Your task to perform on an android device: turn off location Image 0: 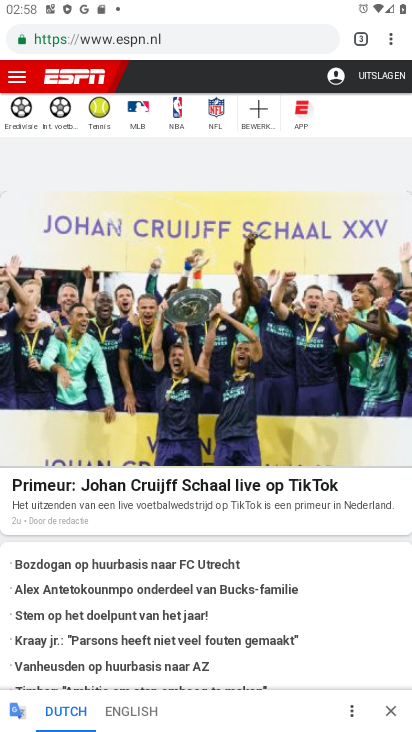
Step 0: press home button
Your task to perform on an android device: turn off location Image 1: 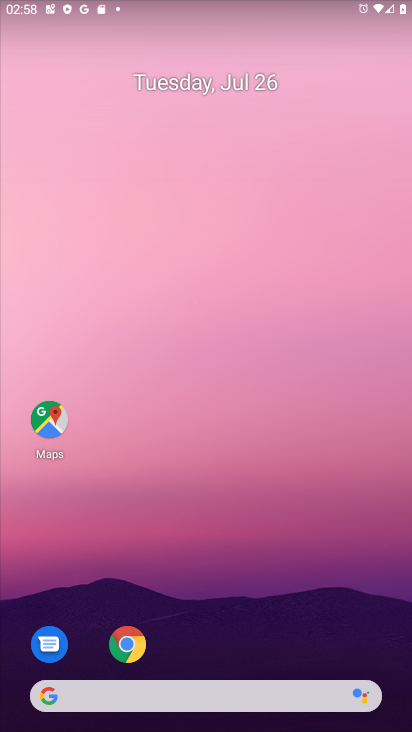
Step 1: drag from (195, 656) to (164, 244)
Your task to perform on an android device: turn off location Image 2: 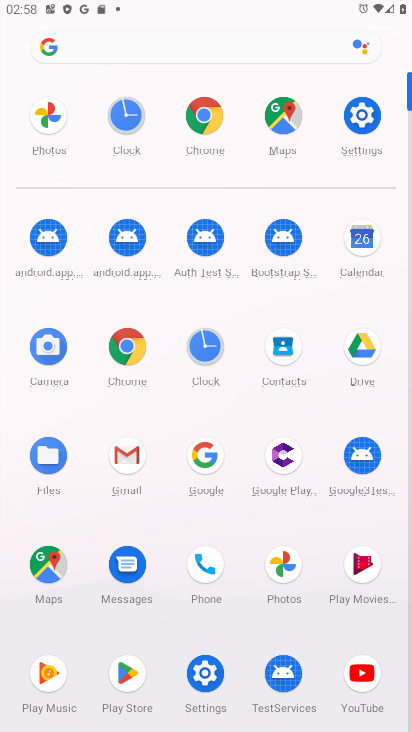
Step 2: click (369, 111)
Your task to perform on an android device: turn off location Image 3: 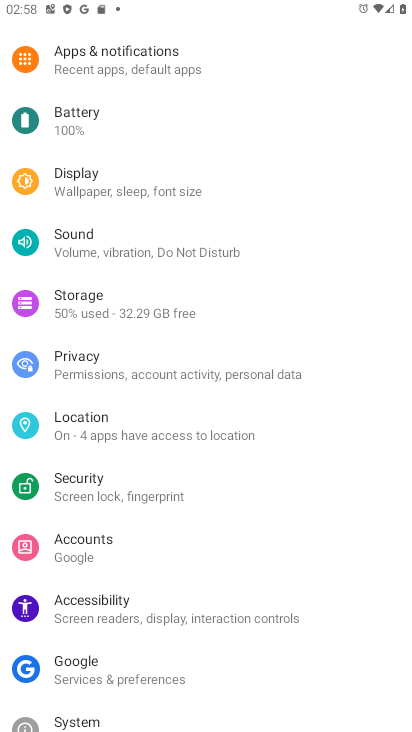
Step 3: click (79, 441)
Your task to perform on an android device: turn off location Image 4: 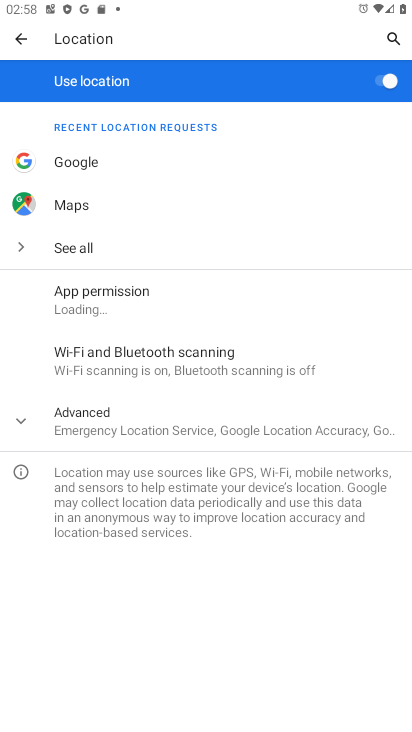
Step 4: click (381, 92)
Your task to perform on an android device: turn off location Image 5: 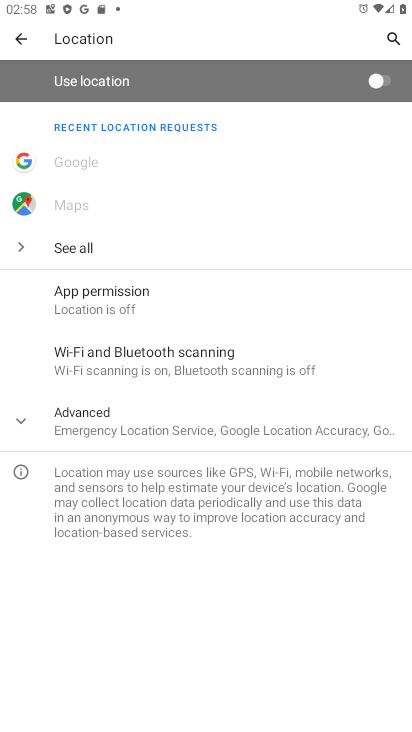
Step 5: task complete